Your task to perform on an android device: set the stopwatch Image 0: 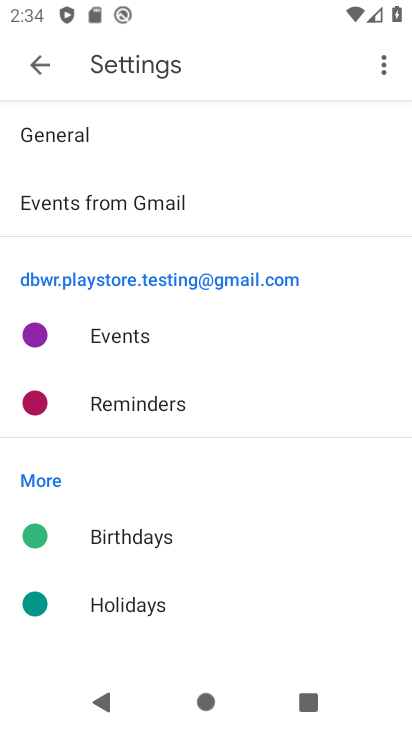
Step 0: press home button
Your task to perform on an android device: set the stopwatch Image 1: 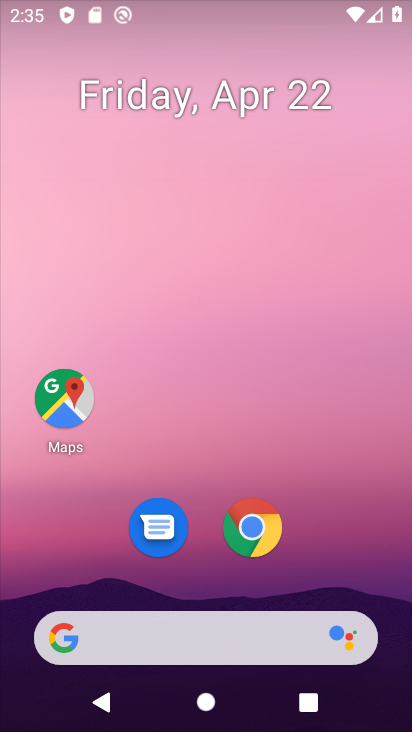
Step 1: drag from (380, 588) to (272, 71)
Your task to perform on an android device: set the stopwatch Image 2: 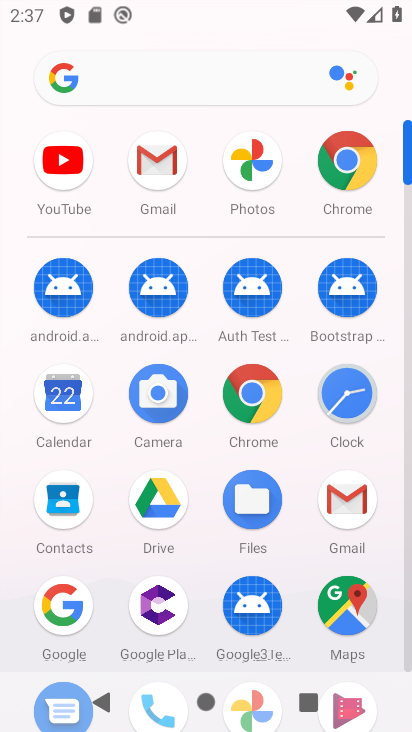
Step 2: click (352, 409)
Your task to perform on an android device: set the stopwatch Image 3: 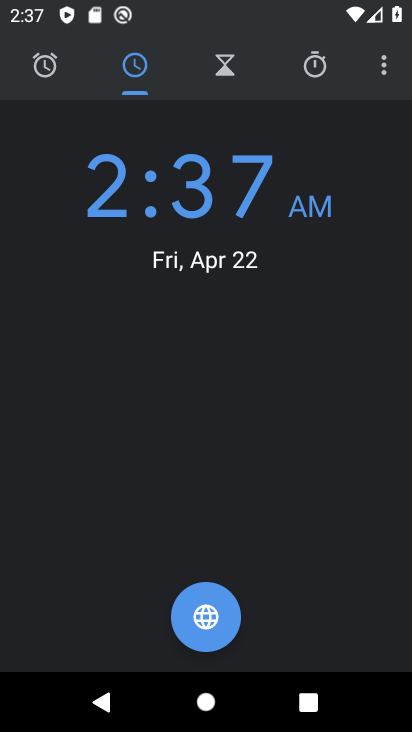
Step 3: click (295, 71)
Your task to perform on an android device: set the stopwatch Image 4: 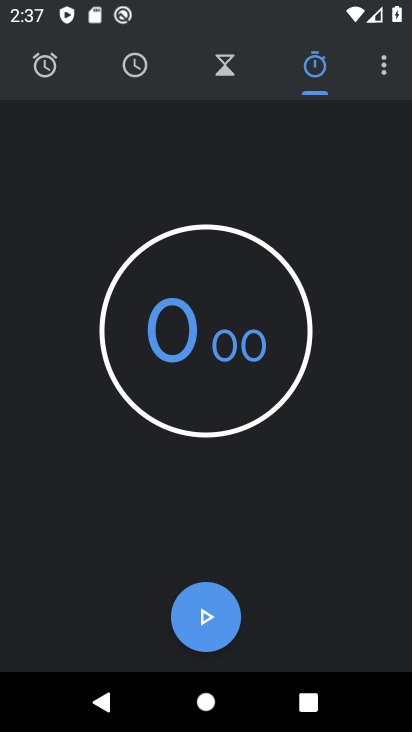
Step 4: task complete